Your task to perform on an android device: Open Android settings Image 0: 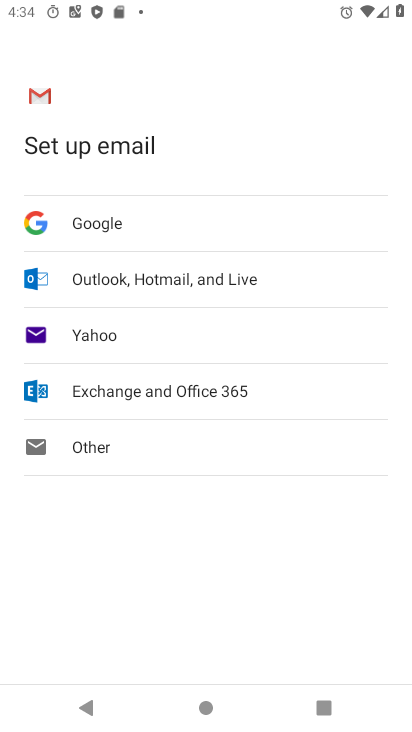
Step 0: press home button
Your task to perform on an android device: Open Android settings Image 1: 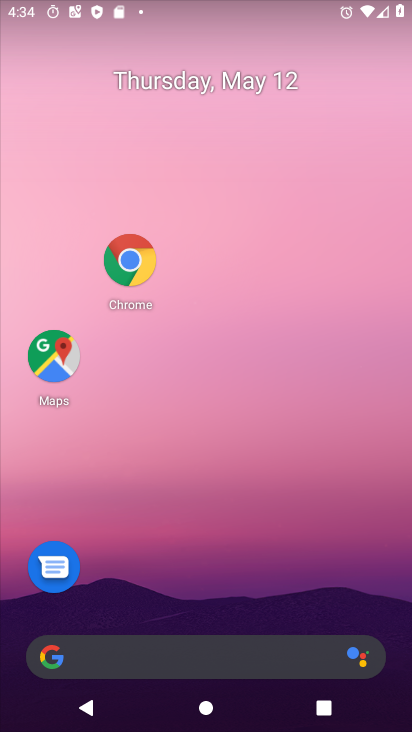
Step 1: drag from (239, 581) to (239, 187)
Your task to perform on an android device: Open Android settings Image 2: 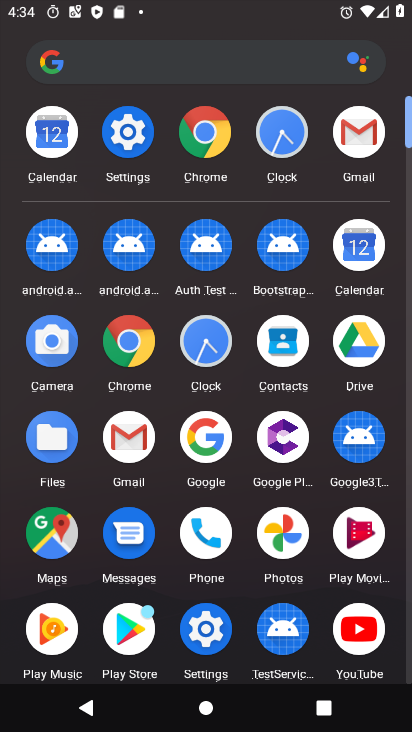
Step 2: click (119, 137)
Your task to perform on an android device: Open Android settings Image 3: 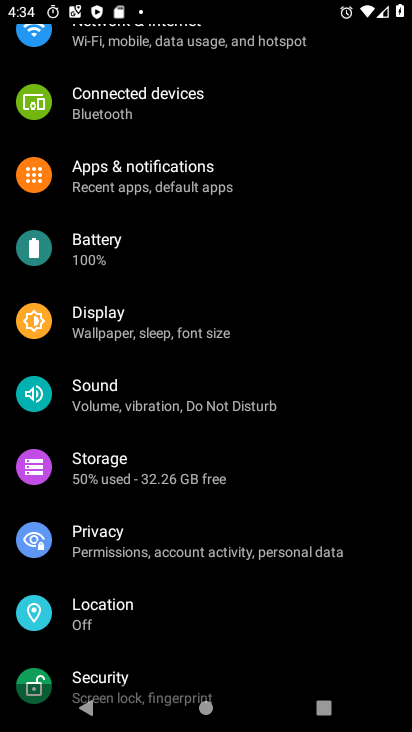
Step 3: task complete